Your task to perform on an android device: turn off airplane mode Image 0: 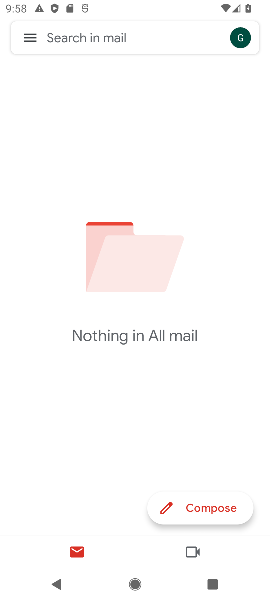
Step 0: press home button
Your task to perform on an android device: turn off airplane mode Image 1: 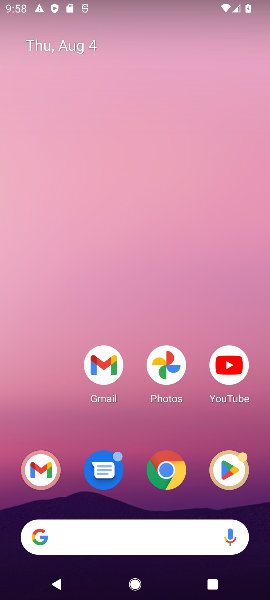
Step 1: drag from (95, 429) to (127, 130)
Your task to perform on an android device: turn off airplane mode Image 2: 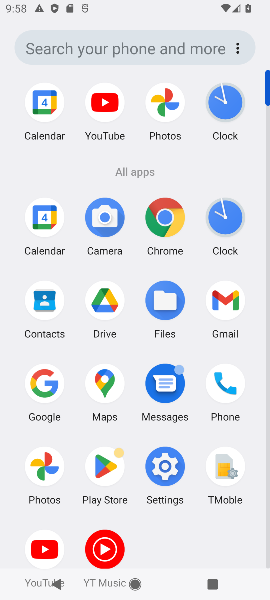
Step 2: click (163, 478)
Your task to perform on an android device: turn off airplane mode Image 3: 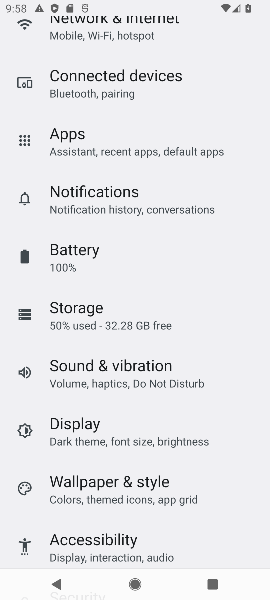
Step 3: drag from (124, 101) to (132, 303)
Your task to perform on an android device: turn off airplane mode Image 4: 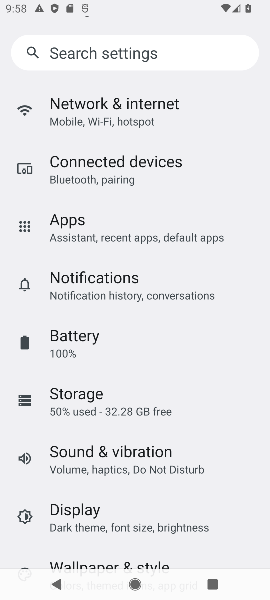
Step 4: click (124, 112)
Your task to perform on an android device: turn off airplane mode Image 5: 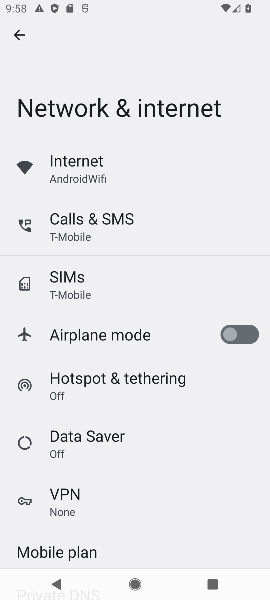
Step 5: task complete